Your task to perform on an android device: Open display settings Image 0: 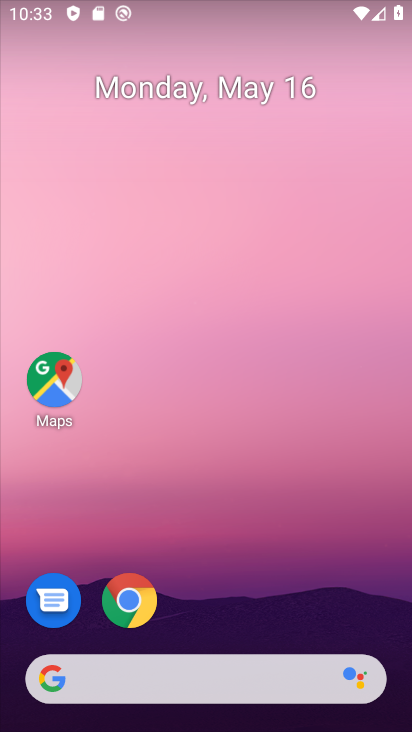
Step 0: drag from (242, 490) to (290, 225)
Your task to perform on an android device: Open display settings Image 1: 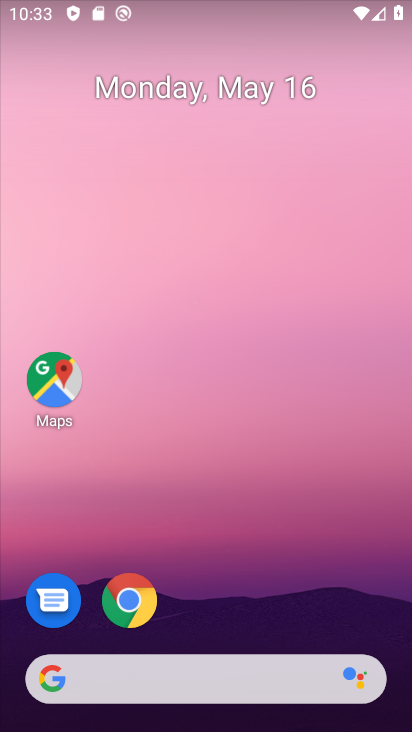
Step 1: drag from (203, 617) to (275, 236)
Your task to perform on an android device: Open display settings Image 2: 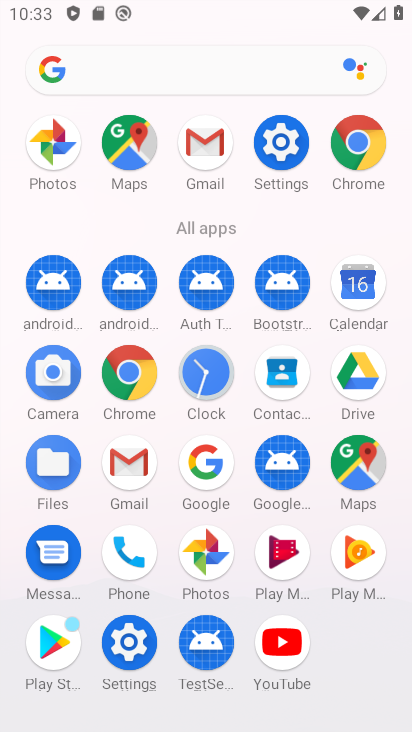
Step 2: click (280, 139)
Your task to perform on an android device: Open display settings Image 3: 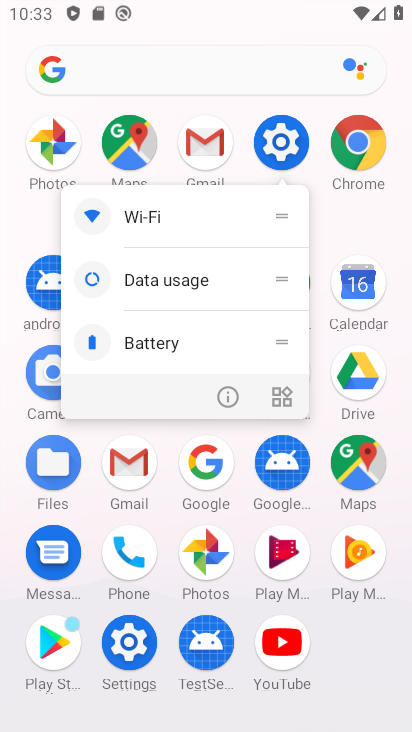
Step 3: click (292, 138)
Your task to perform on an android device: Open display settings Image 4: 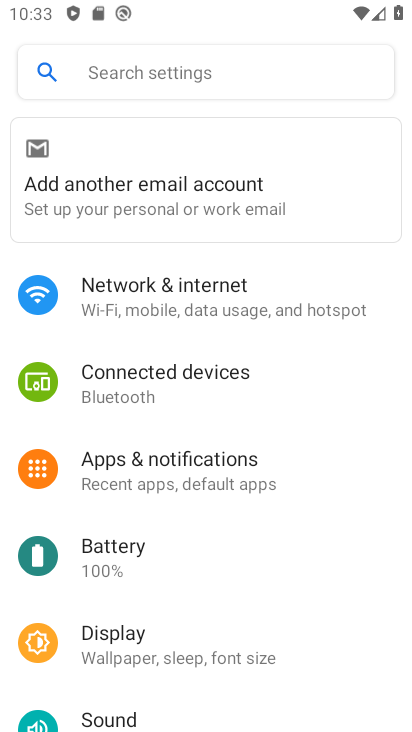
Step 4: click (146, 640)
Your task to perform on an android device: Open display settings Image 5: 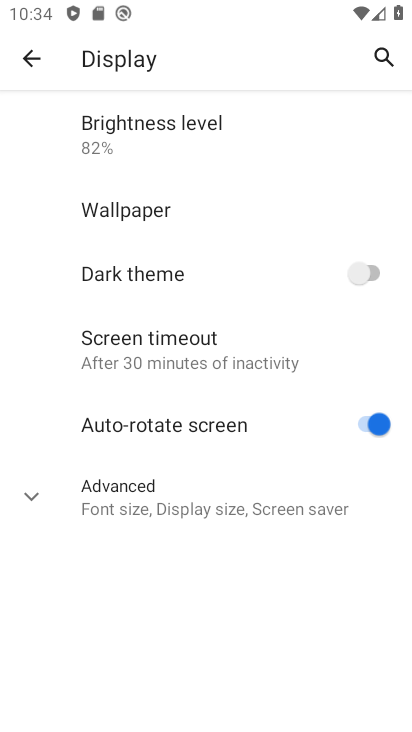
Step 5: task complete